Your task to perform on an android device: open app "AliExpress" (install if not already installed) Image 0: 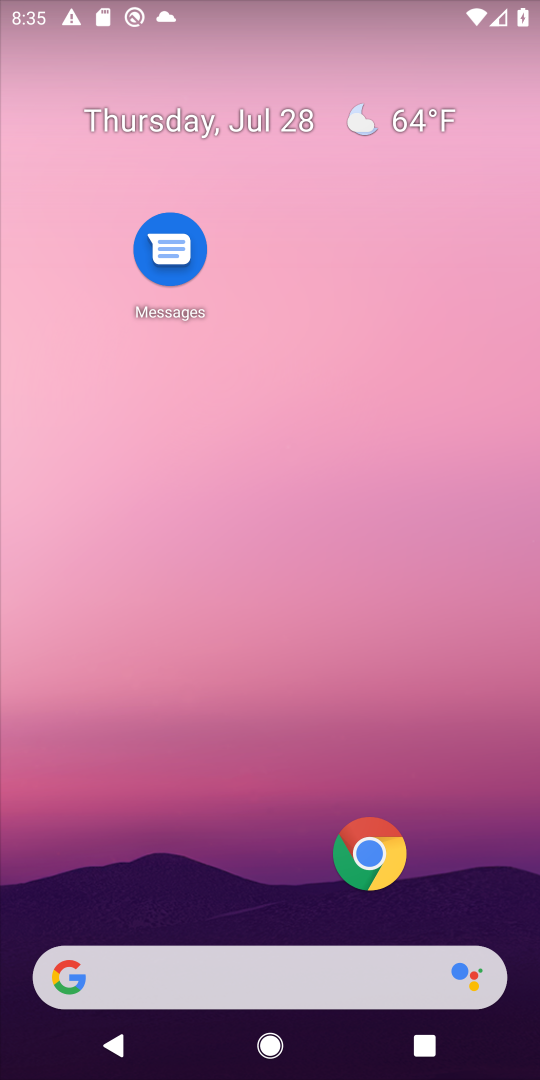
Step 0: drag from (217, 869) to (145, 22)
Your task to perform on an android device: open app "AliExpress" (install if not already installed) Image 1: 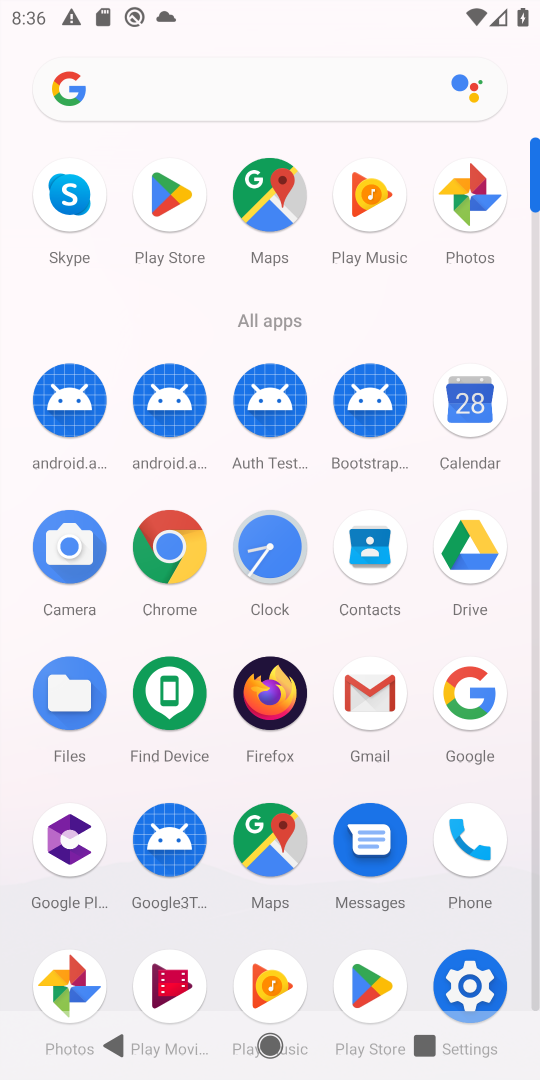
Step 1: click (159, 210)
Your task to perform on an android device: open app "AliExpress" (install if not already installed) Image 2: 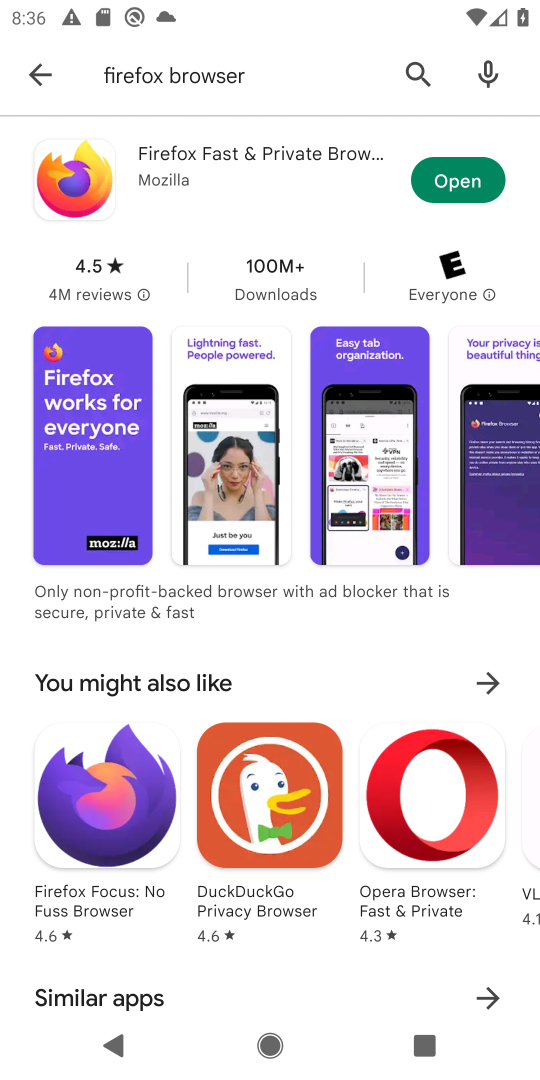
Step 2: click (44, 73)
Your task to perform on an android device: open app "AliExpress" (install if not already installed) Image 3: 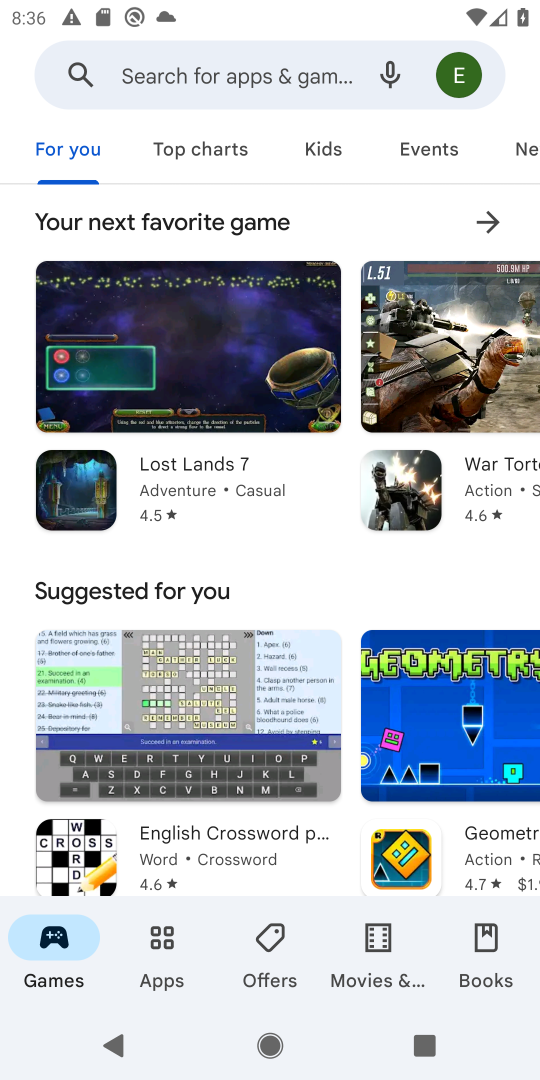
Step 3: click (248, 66)
Your task to perform on an android device: open app "AliExpress" (install if not already installed) Image 4: 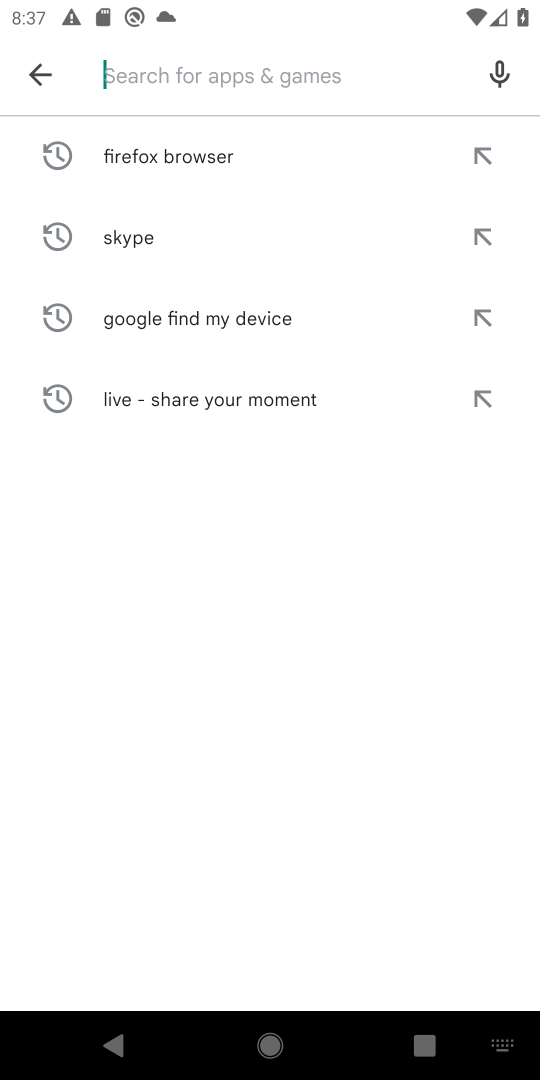
Step 4: type "AliExpress"
Your task to perform on an android device: open app "AliExpress" (install if not already installed) Image 5: 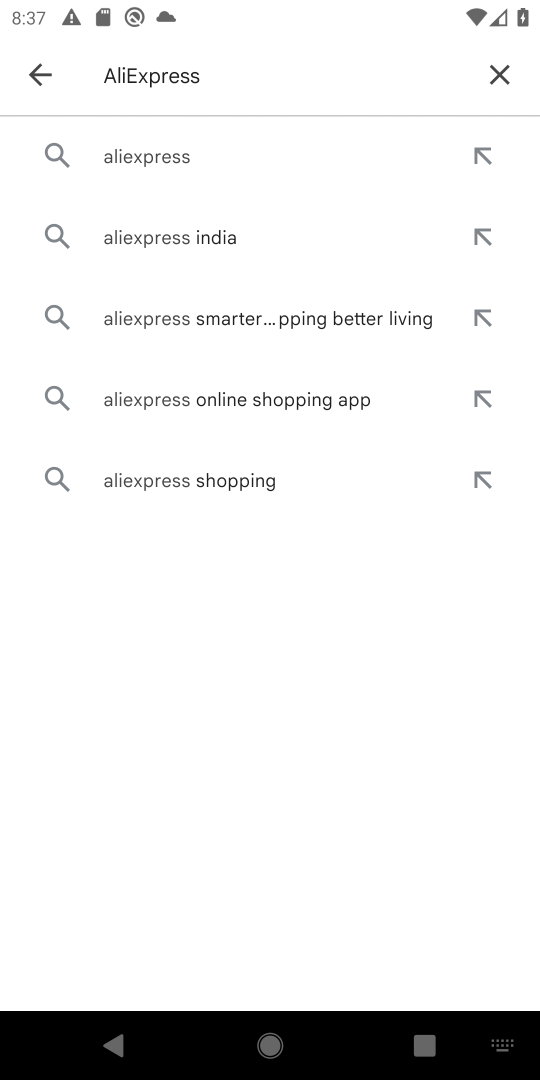
Step 5: click (183, 169)
Your task to perform on an android device: open app "AliExpress" (install if not already installed) Image 6: 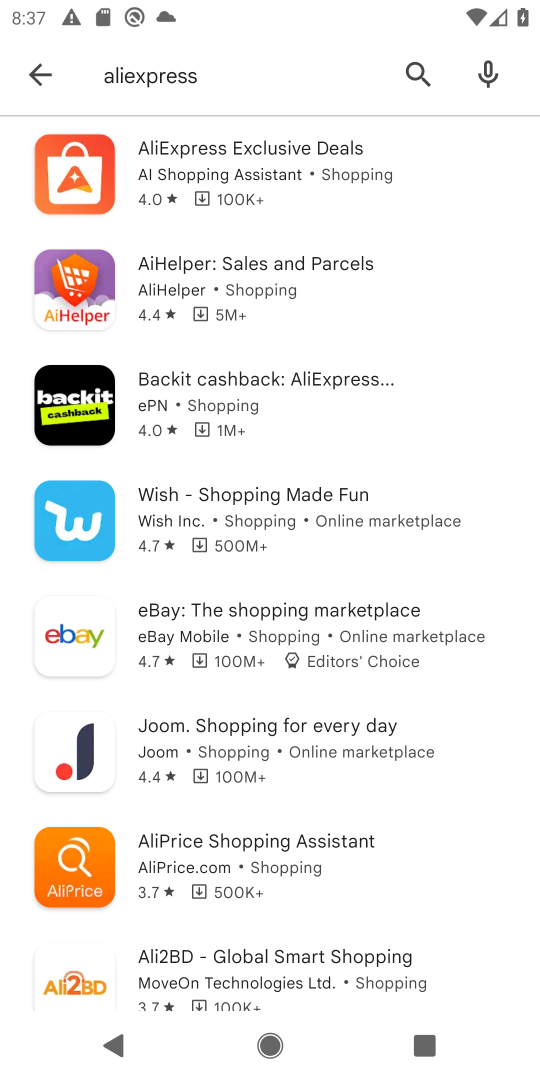
Step 6: click (338, 175)
Your task to perform on an android device: open app "AliExpress" (install if not already installed) Image 7: 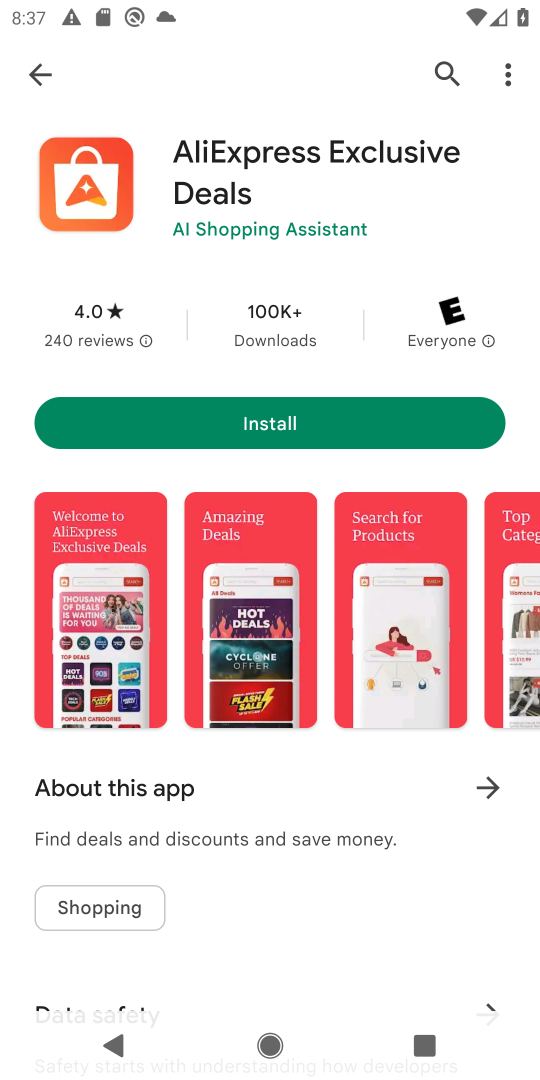
Step 7: click (226, 421)
Your task to perform on an android device: open app "AliExpress" (install if not already installed) Image 8: 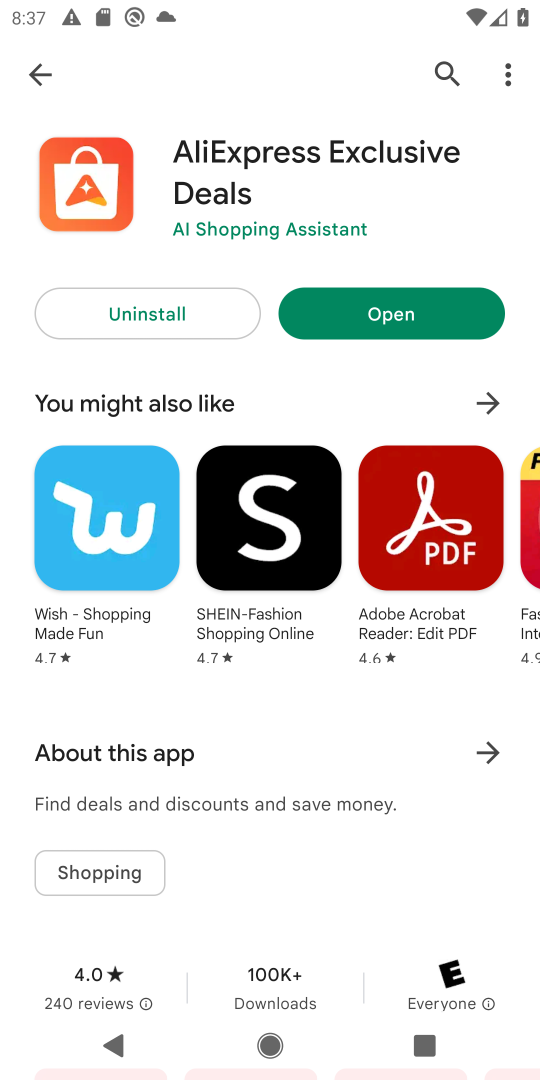
Step 8: click (436, 309)
Your task to perform on an android device: open app "AliExpress" (install if not already installed) Image 9: 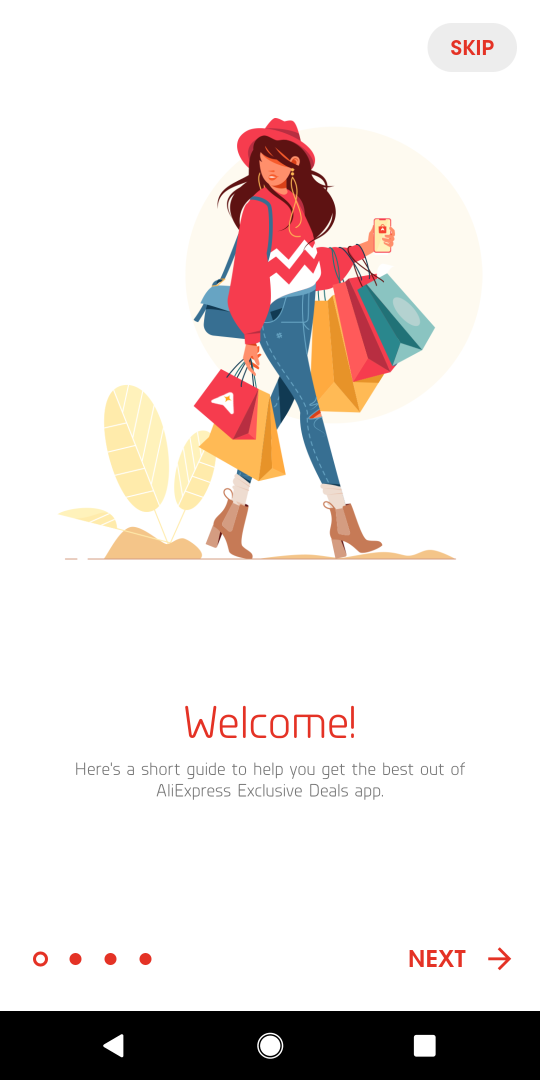
Step 9: task complete